Your task to perform on an android device: Open Google Maps and go to "Timeline" Image 0: 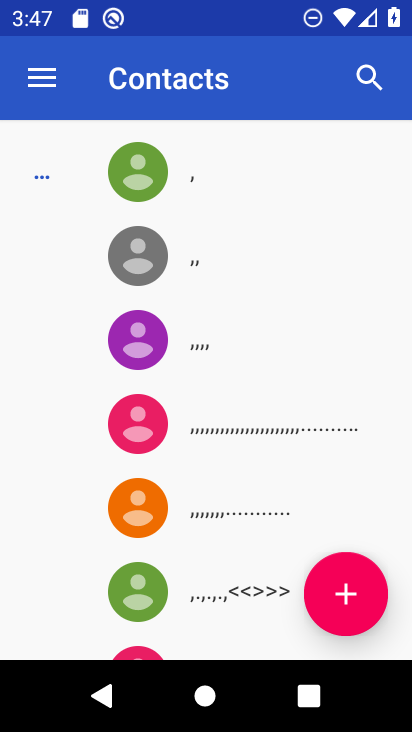
Step 0: press home button
Your task to perform on an android device: Open Google Maps and go to "Timeline" Image 1: 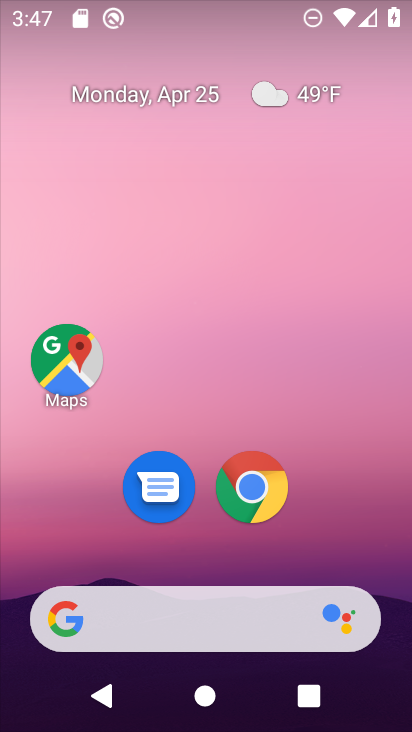
Step 1: click (73, 366)
Your task to perform on an android device: Open Google Maps and go to "Timeline" Image 2: 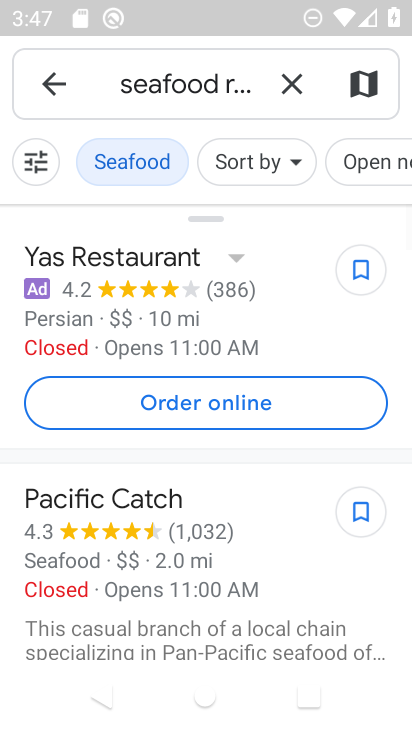
Step 2: click (288, 83)
Your task to perform on an android device: Open Google Maps and go to "Timeline" Image 3: 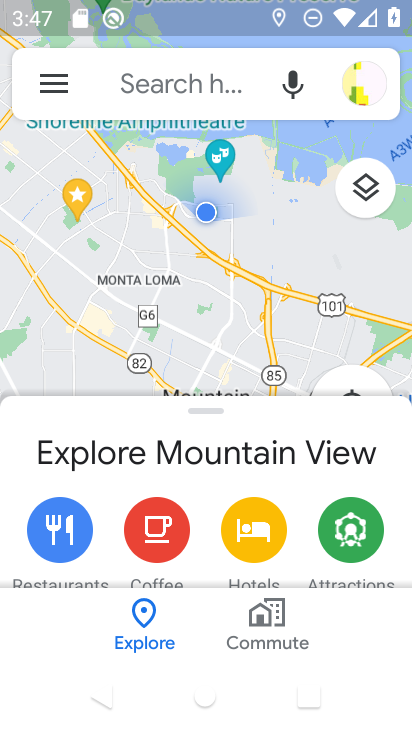
Step 3: click (60, 92)
Your task to perform on an android device: Open Google Maps and go to "Timeline" Image 4: 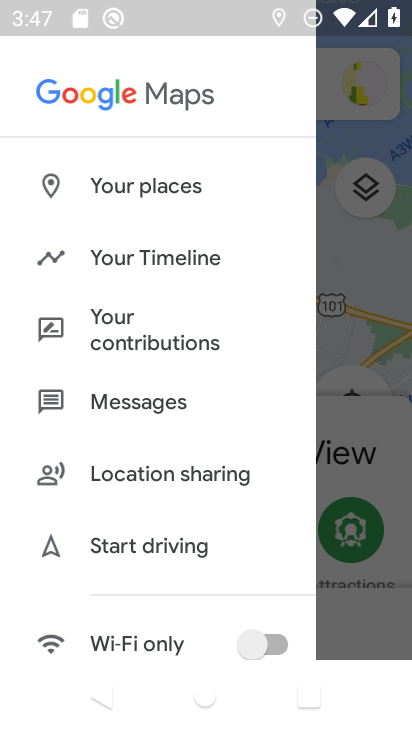
Step 4: click (102, 262)
Your task to perform on an android device: Open Google Maps and go to "Timeline" Image 5: 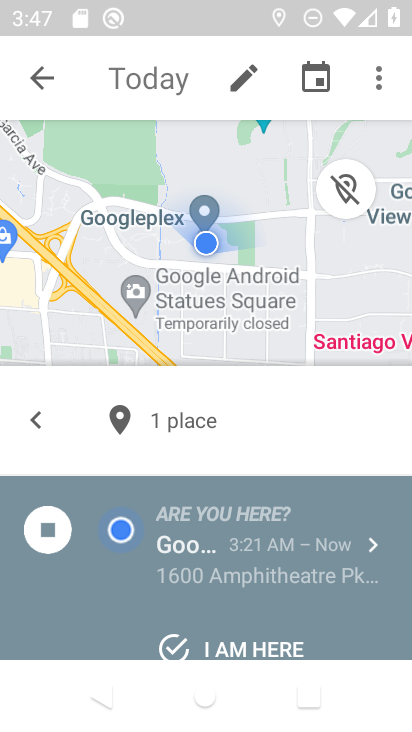
Step 5: task complete